Your task to perform on an android device: Open the phone app and click the voicemail tab. Image 0: 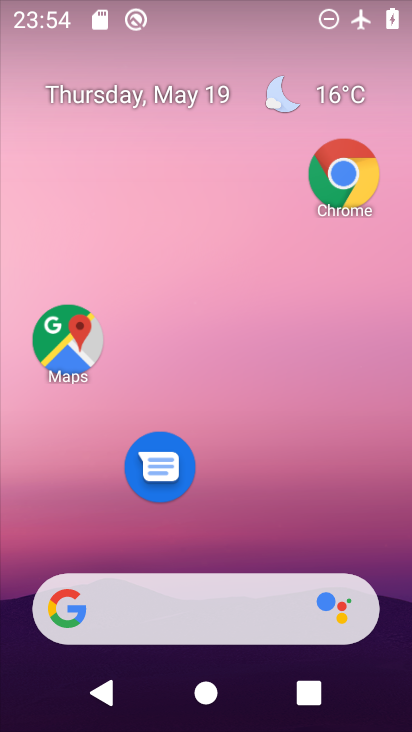
Step 0: drag from (250, 593) to (292, 347)
Your task to perform on an android device: Open the phone app and click the voicemail tab. Image 1: 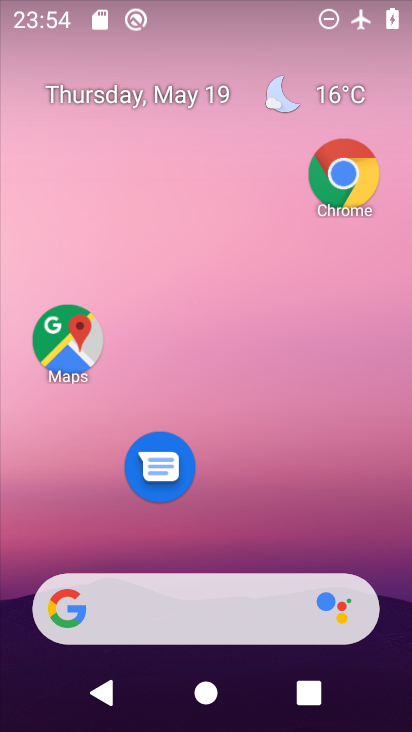
Step 1: drag from (286, 574) to (287, 292)
Your task to perform on an android device: Open the phone app and click the voicemail tab. Image 2: 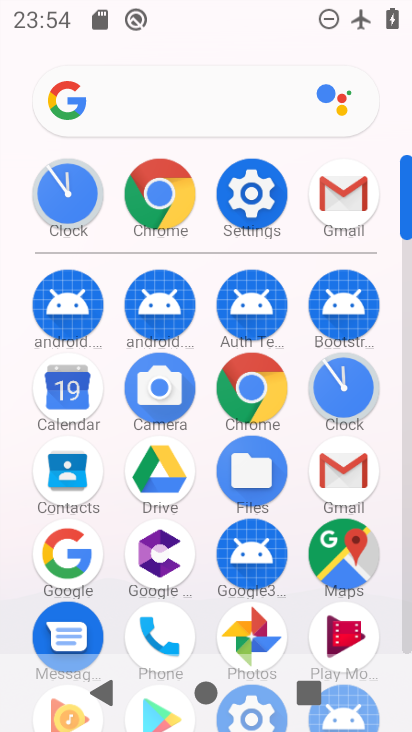
Step 2: click (162, 616)
Your task to perform on an android device: Open the phone app and click the voicemail tab. Image 3: 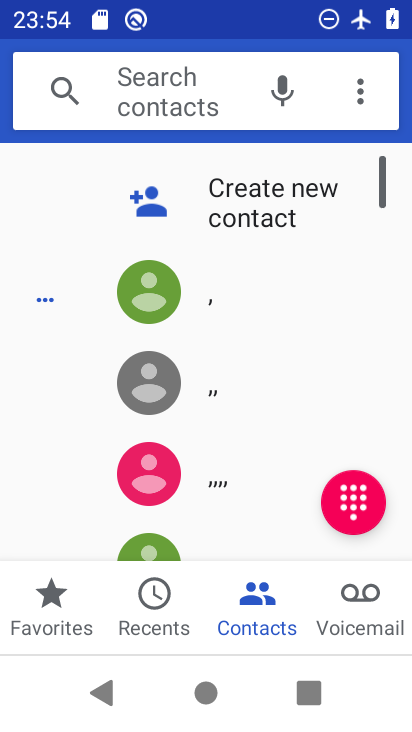
Step 3: click (365, 603)
Your task to perform on an android device: Open the phone app and click the voicemail tab. Image 4: 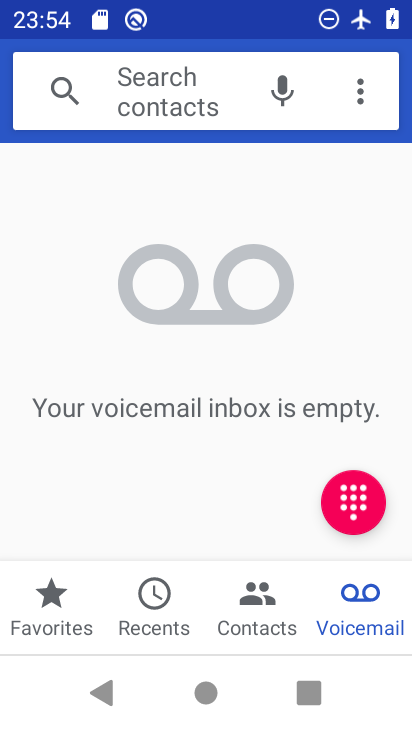
Step 4: task complete